Your task to perform on an android device: Search for Mexican restaurants on Maps Image 0: 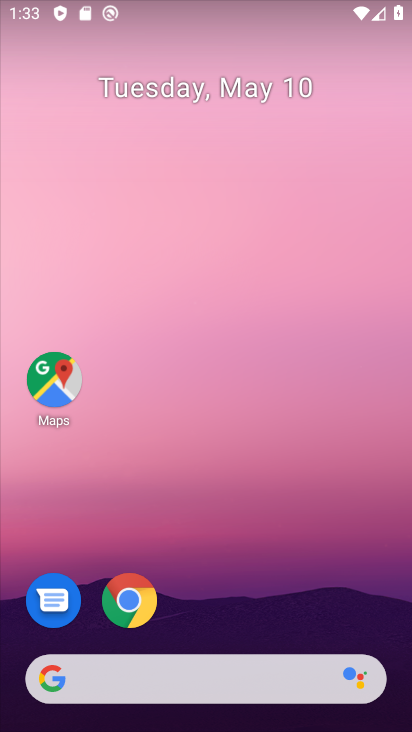
Step 0: click (55, 381)
Your task to perform on an android device: Search for Mexican restaurants on Maps Image 1: 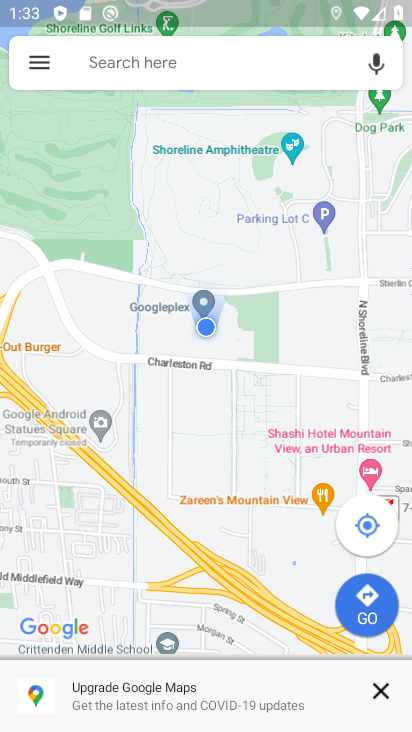
Step 1: click (195, 63)
Your task to perform on an android device: Search for Mexican restaurants on Maps Image 2: 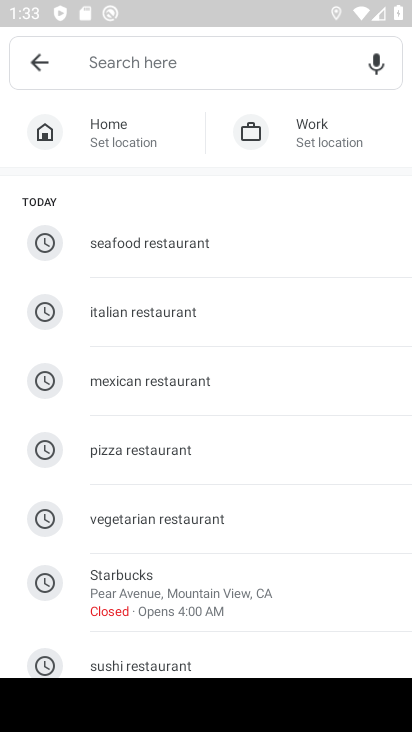
Step 2: click (171, 387)
Your task to perform on an android device: Search for Mexican restaurants on Maps Image 3: 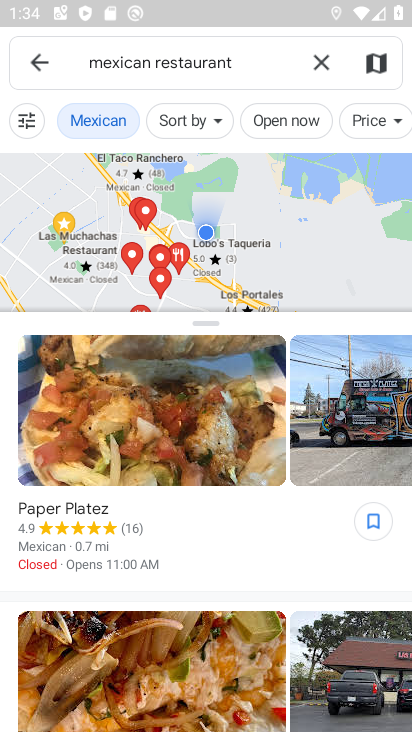
Step 3: task complete